Your task to perform on an android device: Open Reddit.com Image 0: 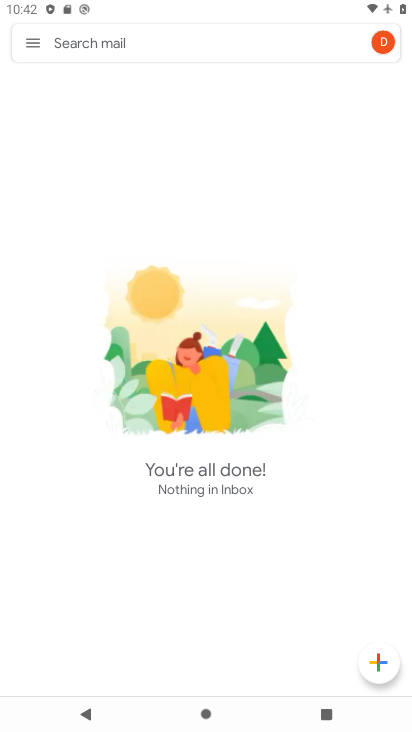
Step 0: press home button
Your task to perform on an android device: Open Reddit.com Image 1: 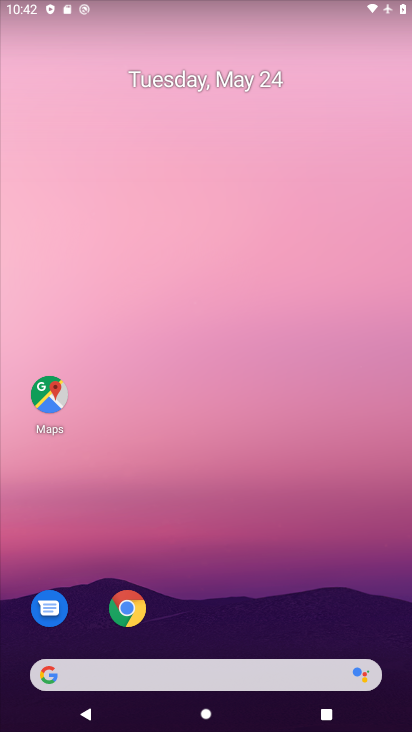
Step 1: click (132, 605)
Your task to perform on an android device: Open Reddit.com Image 2: 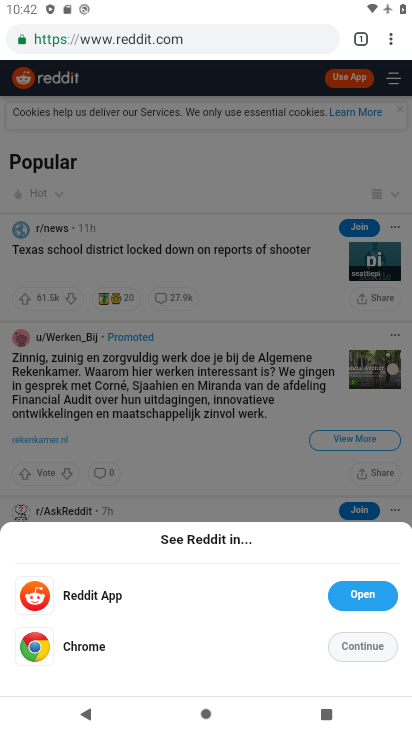
Step 2: task complete